Your task to perform on an android device: Open the map Image 0: 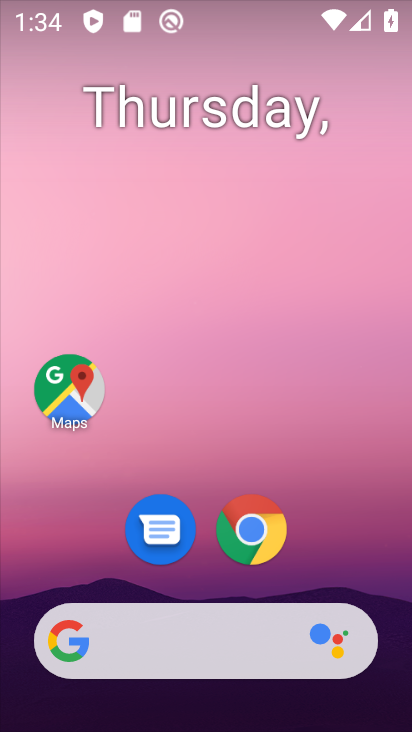
Step 0: drag from (221, 723) to (219, 36)
Your task to perform on an android device: Open the map Image 1: 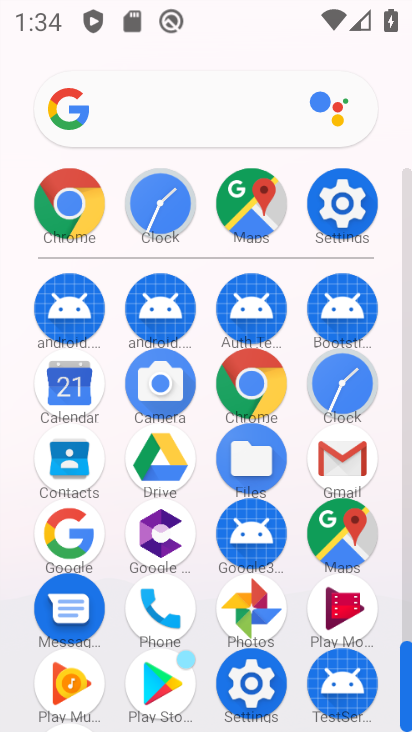
Step 1: click (251, 209)
Your task to perform on an android device: Open the map Image 2: 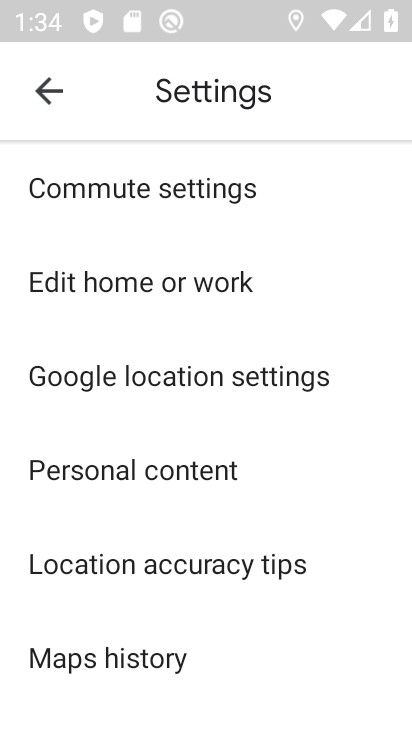
Step 2: click (47, 87)
Your task to perform on an android device: Open the map Image 3: 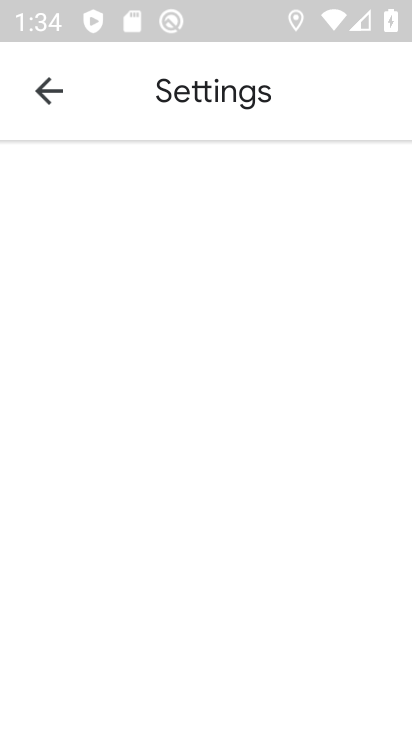
Step 3: click (48, 90)
Your task to perform on an android device: Open the map Image 4: 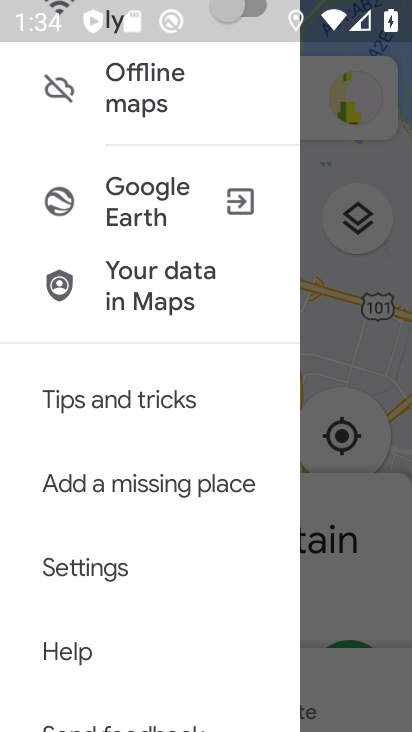
Step 4: click (338, 145)
Your task to perform on an android device: Open the map Image 5: 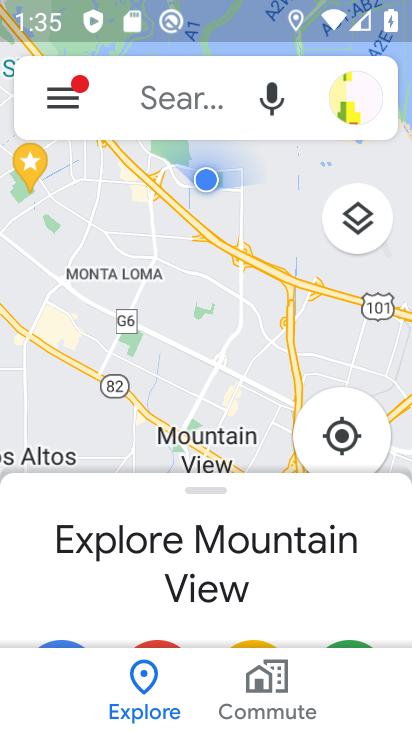
Step 5: task complete